Your task to perform on an android device: Open network settings Image 0: 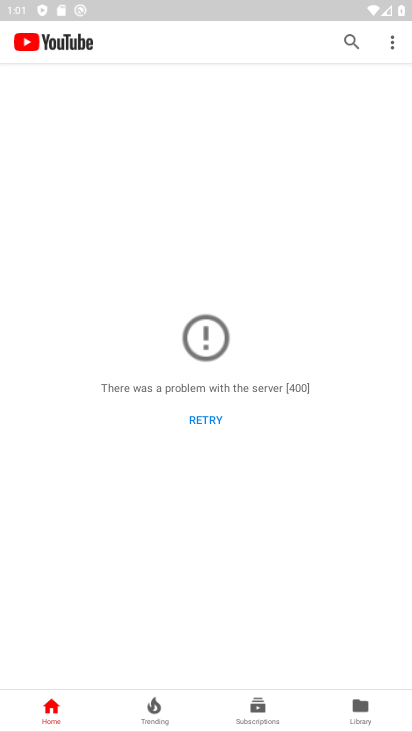
Step 0: press home button
Your task to perform on an android device: Open network settings Image 1: 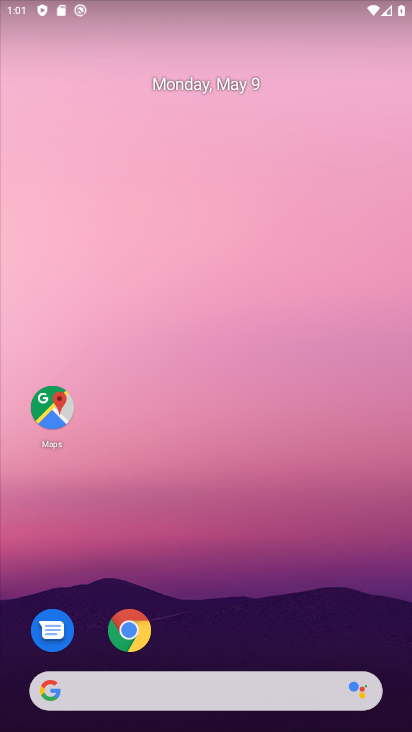
Step 1: drag from (246, 719) to (332, 294)
Your task to perform on an android device: Open network settings Image 2: 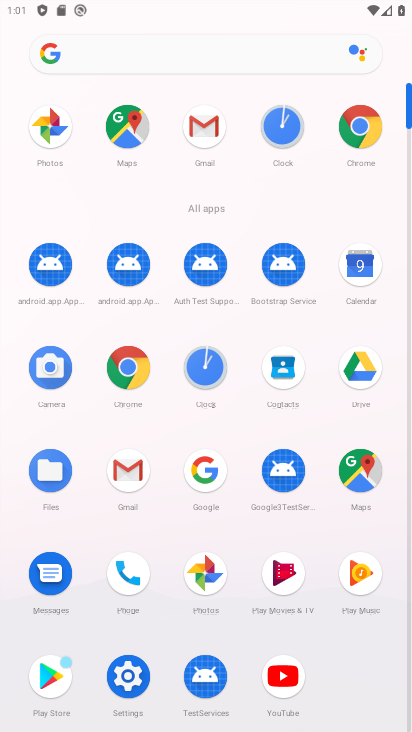
Step 2: click (121, 665)
Your task to perform on an android device: Open network settings Image 3: 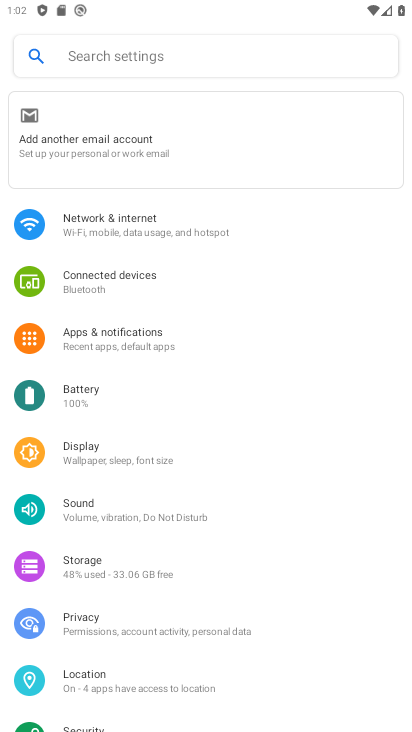
Step 3: click (162, 231)
Your task to perform on an android device: Open network settings Image 4: 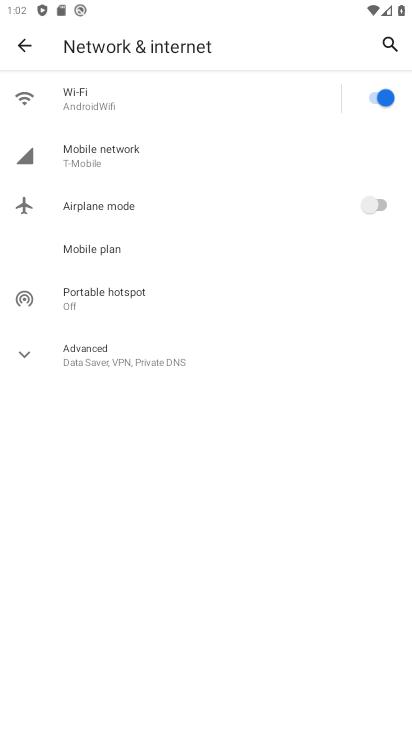
Step 4: task complete